Your task to perform on an android device: Open the calendar and show me this week's events? Image 0: 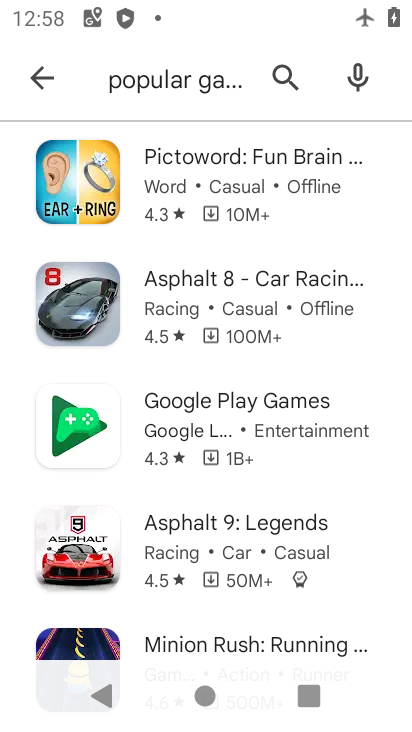
Step 0: press home button
Your task to perform on an android device: Open the calendar and show me this week's events? Image 1: 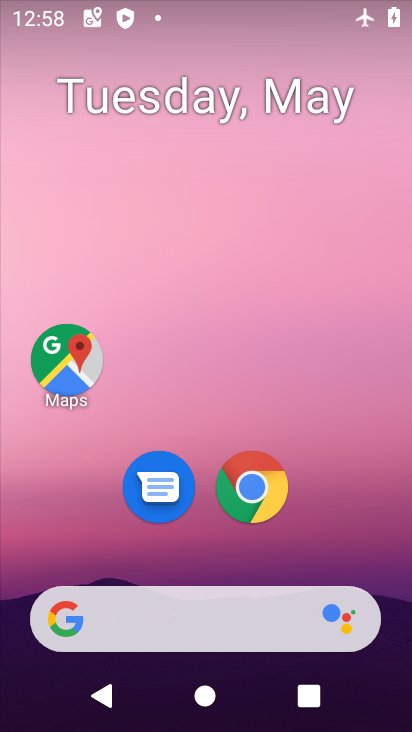
Step 1: click (204, 106)
Your task to perform on an android device: Open the calendar and show me this week's events? Image 2: 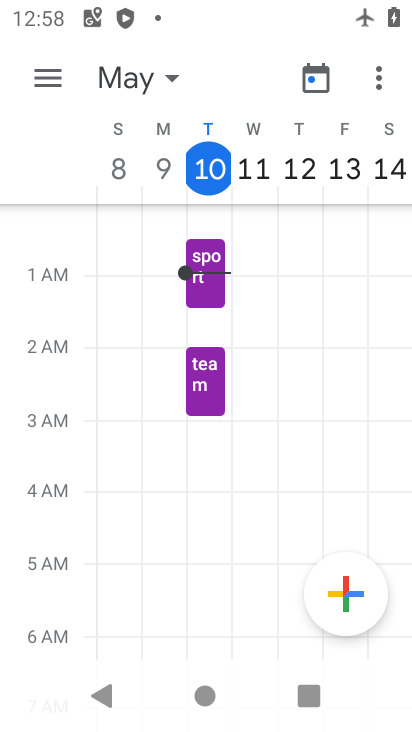
Step 2: click (54, 70)
Your task to perform on an android device: Open the calendar and show me this week's events? Image 3: 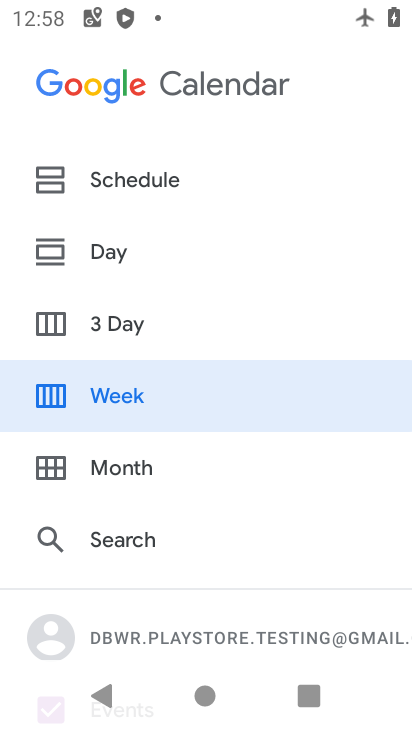
Step 3: drag from (151, 553) to (201, 165)
Your task to perform on an android device: Open the calendar and show me this week's events? Image 4: 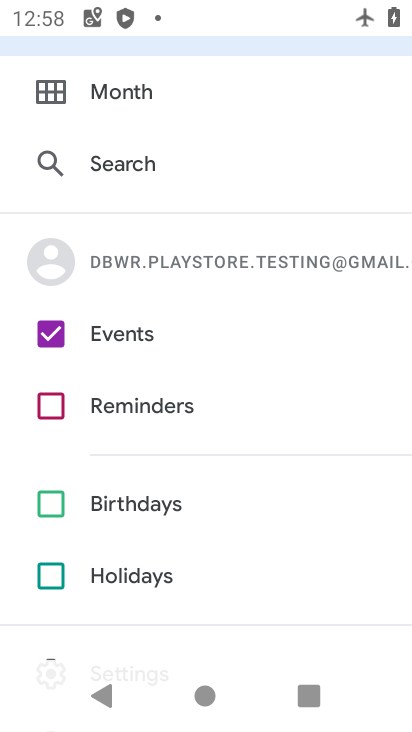
Step 4: drag from (158, 237) to (120, 561)
Your task to perform on an android device: Open the calendar and show me this week's events? Image 5: 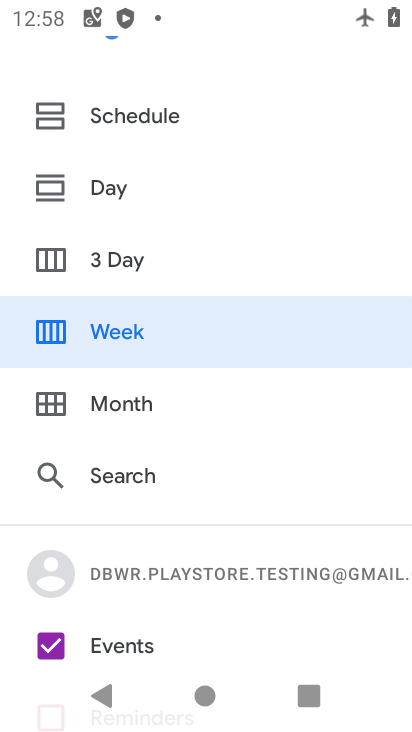
Step 5: click (164, 319)
Your task to perform on an android device: Open the calendar and show me this week's events? Image 6: 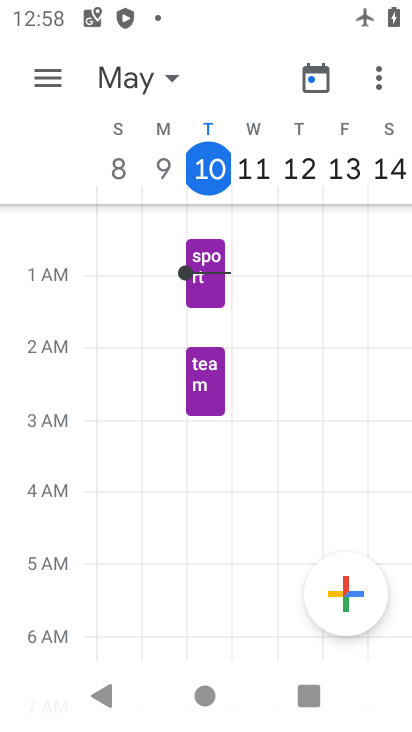
Step 6: task complete